Your task to perform on an android device: Open sound settings Image 0: 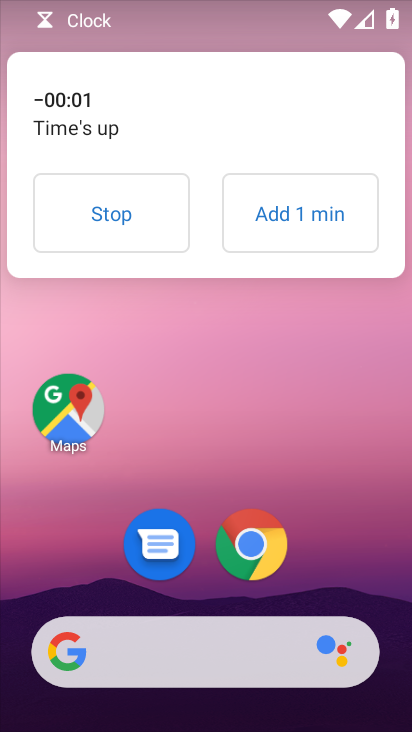
Step 0: click (142, 214)
Your task to perform on an android device: Open sound settings Image 1: 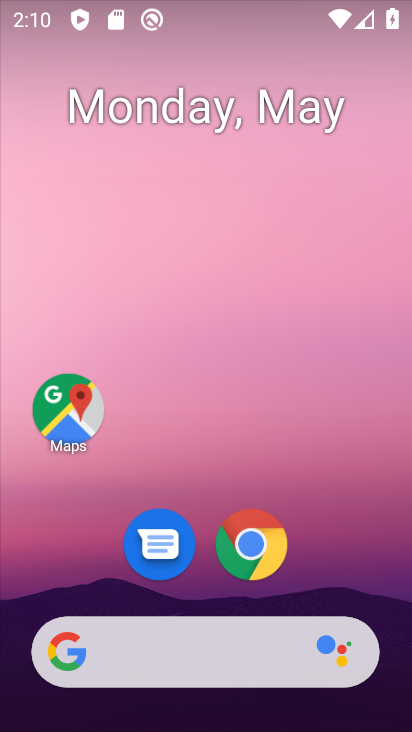
Step 1: drag from (196, 591) to (225, 227)
Your task to perform on an android device: Open sound settings Image 2: 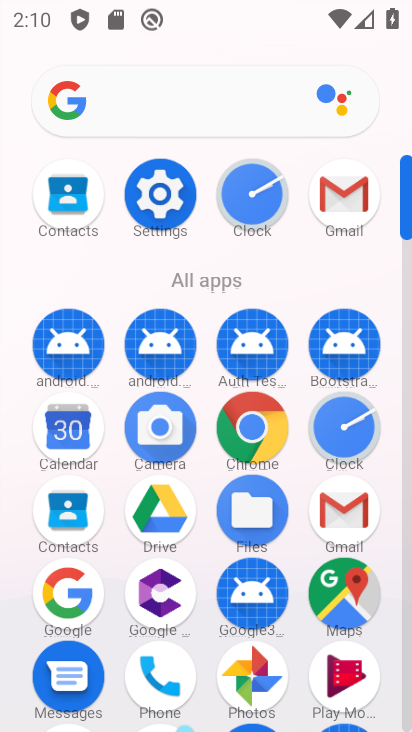
Step 2: click (173, 208)
Your task to perform on an android device: Open sound settings Image 3: 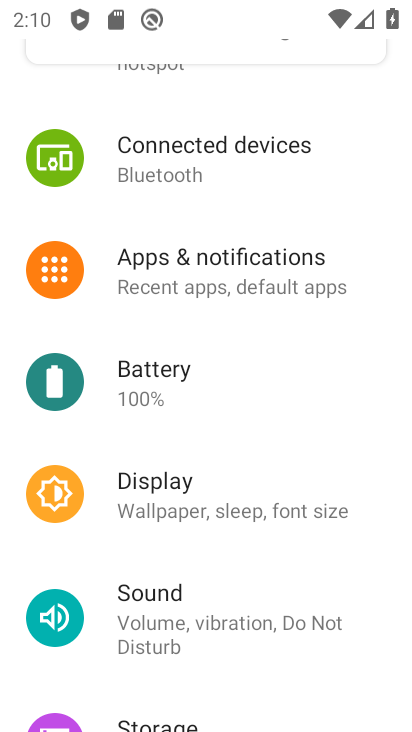
Step 3: click (181, 627)
Your task to perform on an android device: Open sound settings Image 4: 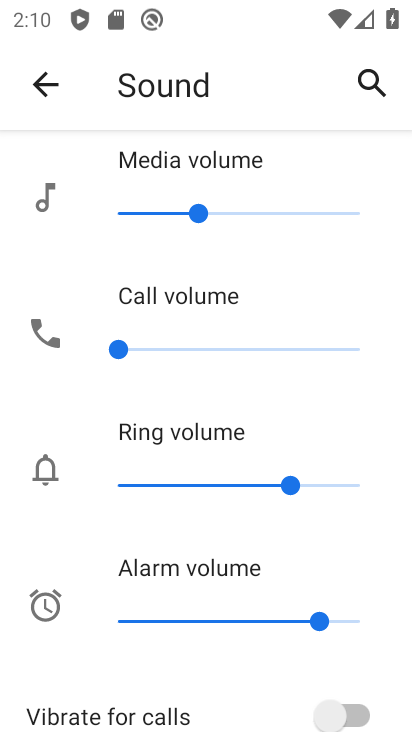
Step 4: task complete